Your task to perform on an android device: What is the news today? Image 0: 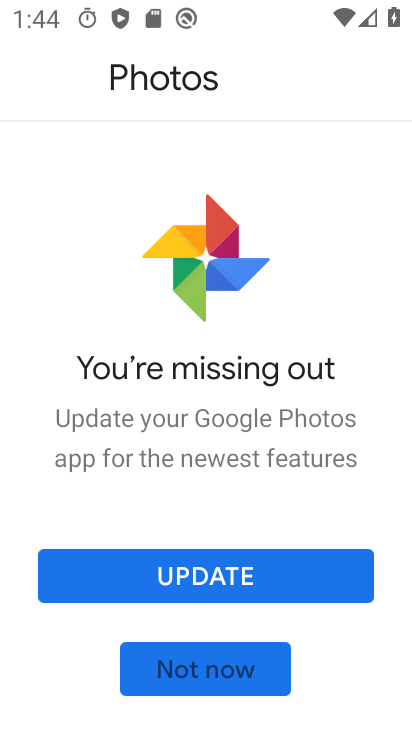
Step 0: press home button
Your task to perform on an android device: What is the news today? Image 1: 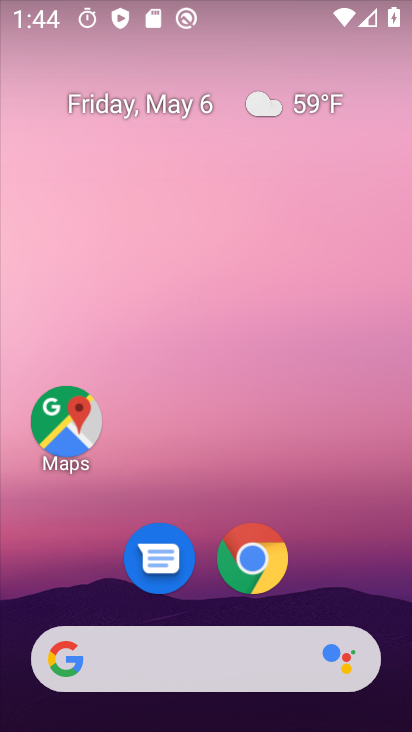
Step 1: task complete